Your task to perform on an android device: turn on translation in the chrome app Image 0: 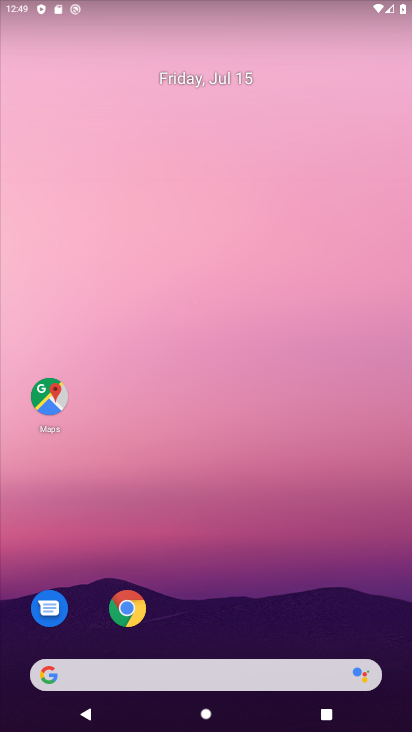
Step 0: drag from (187, 614) to (259, 107)
Your task to perform on an android device: turn on translation in the chrome app Image 1: 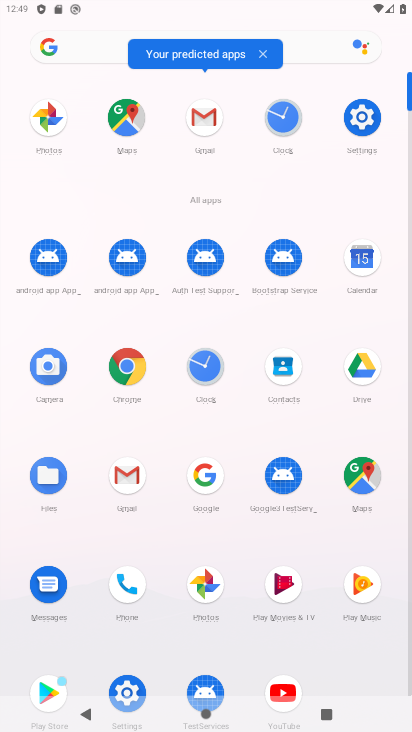
Step 1: click (124, 369)
Your task to perform on an android device: turn on translation in the chrome app Image 2: 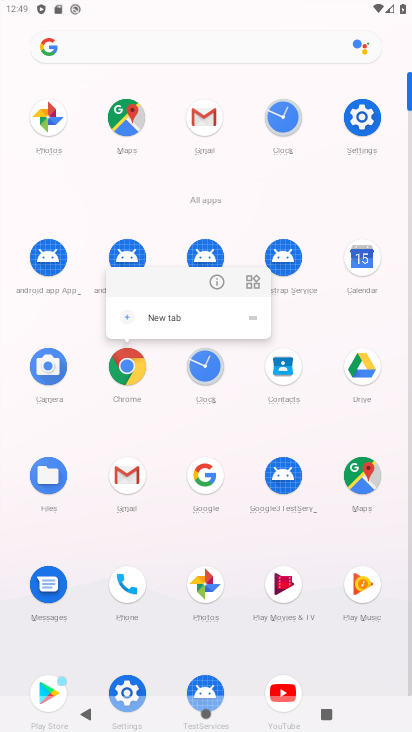
Step 2: click (214, 288)
Your task to perform on an android device: turn on translation in the chrome app Image 3: 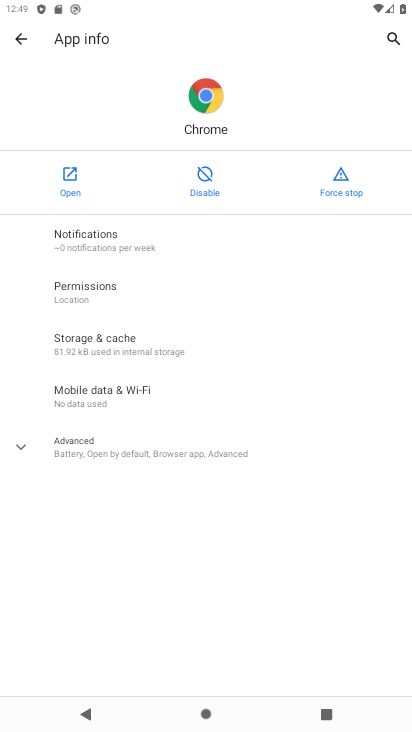
Step 3: click (68, 172)
Your task to perform on an android device: turn on translation in the chrome app Image 4: 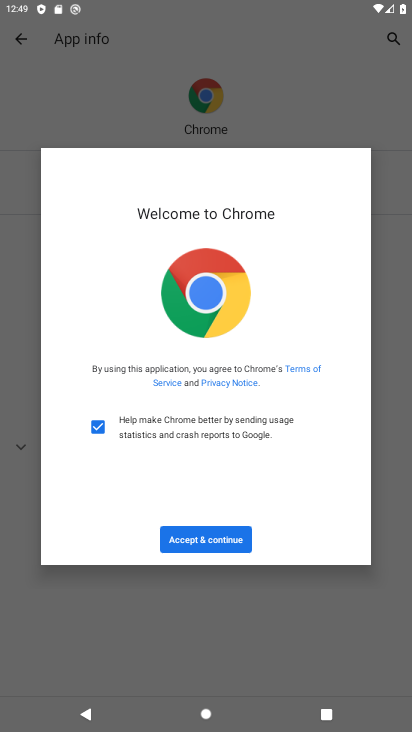
Step 4: click (210, 540)
Your task to perform on an android device: turn on translation in the chrome app Image 5: 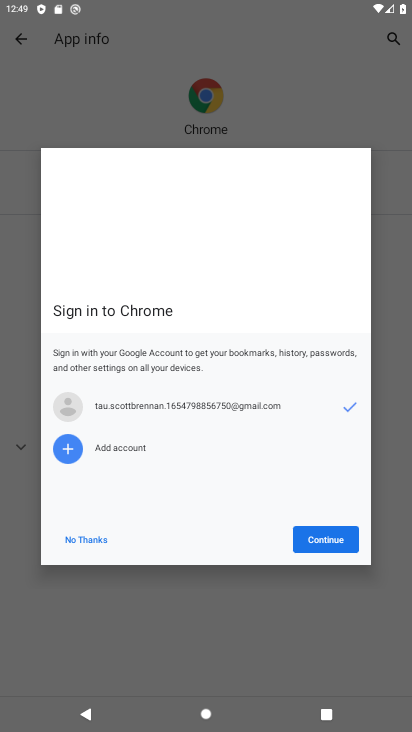
Step 5: click (308, 534)
Your task to perform on an android device: turn on translation in the chrome app Image 6: 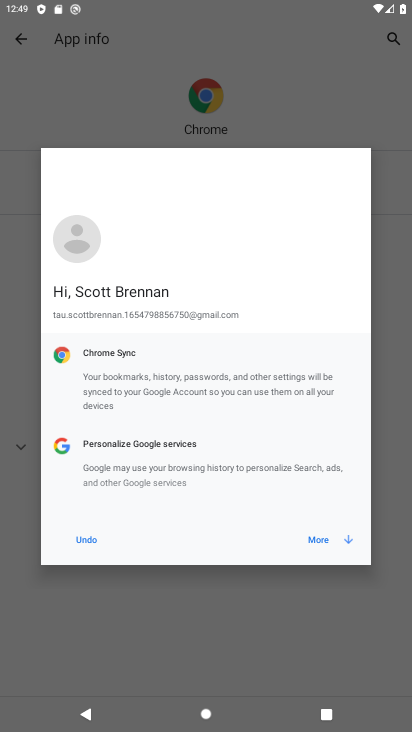
Step 6: click (305, 531)
Your task to perform on an android device: turn on translation in the chrome app Image 7: 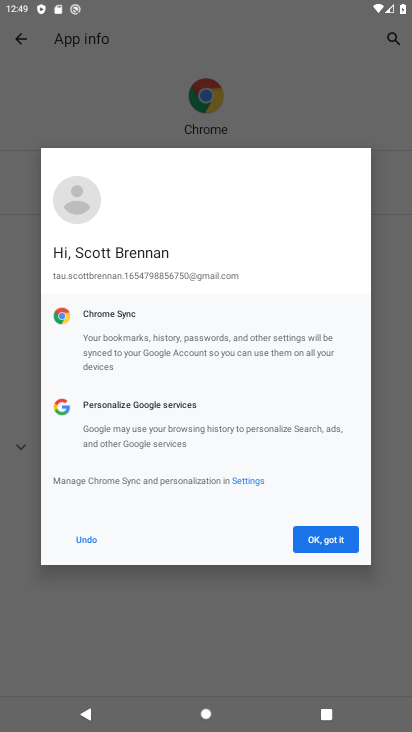
Step 7: click (308, 533)
Your task to perform on an android device: turn on translation in the chrome app Image 8: 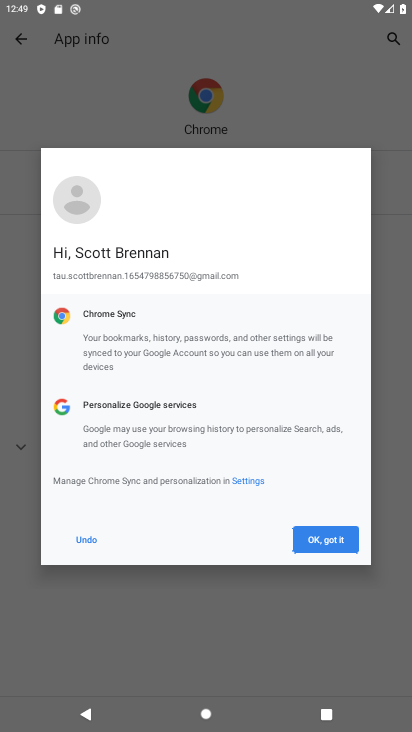
Step 8: click (313, 531)
Your task to perform on an android device: turn on translation in the chrome app Image 9: 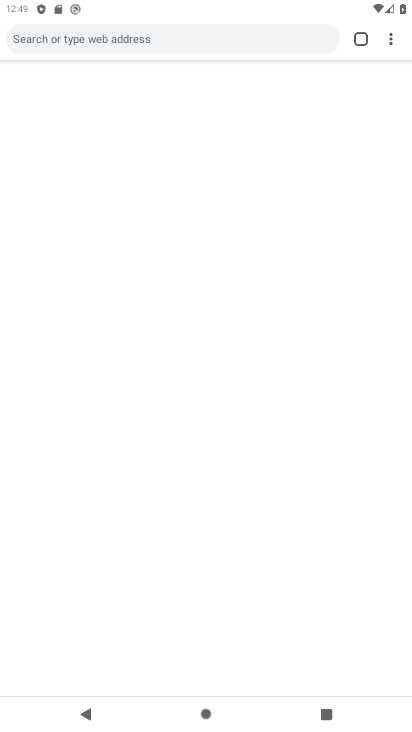
Step 9: drag from (239, 478) to (260, 249)
Your task to perform on an android device: turn on translation in the chrome app Image 10: 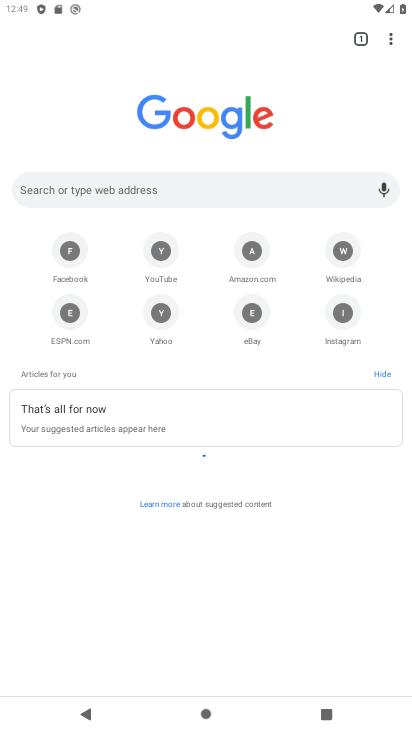
Step 10: click (391, 43)
Your task to perform on an android device: turn on translation in the chrome app Image 11: 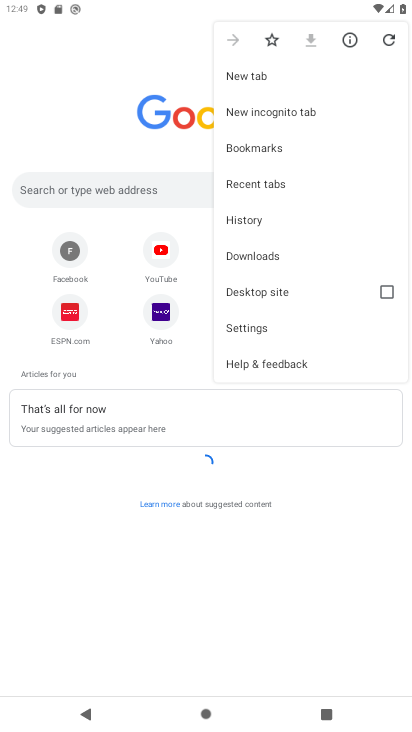
Step 11: click (242, 326)
Your task to perform on an android device: turn on translation in the chrome app Image 12: 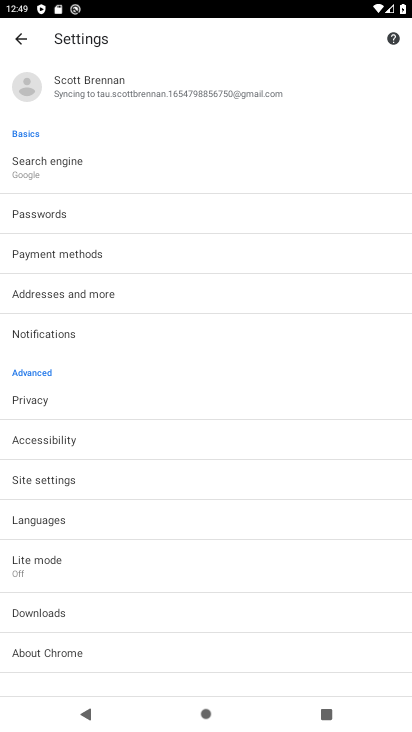
Step 12: drag from (209, 539) to (268, 341)
Your task to perform on an android device: turn on translation in the chrome app Image 13: 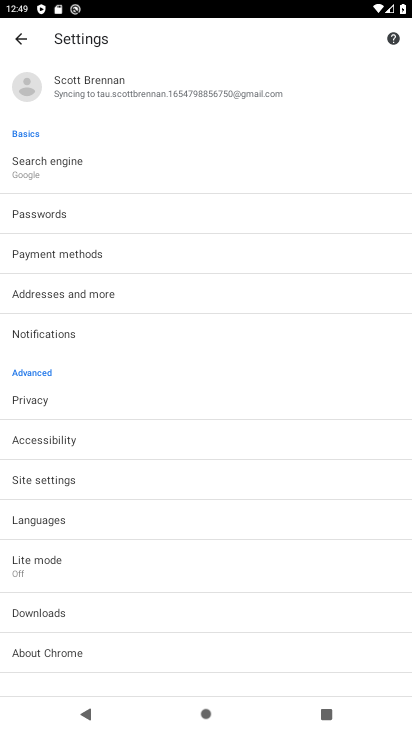
Step 13: click (82, 520)
Your task to perform on an android device: turn on translation in the chrome app Image 14: 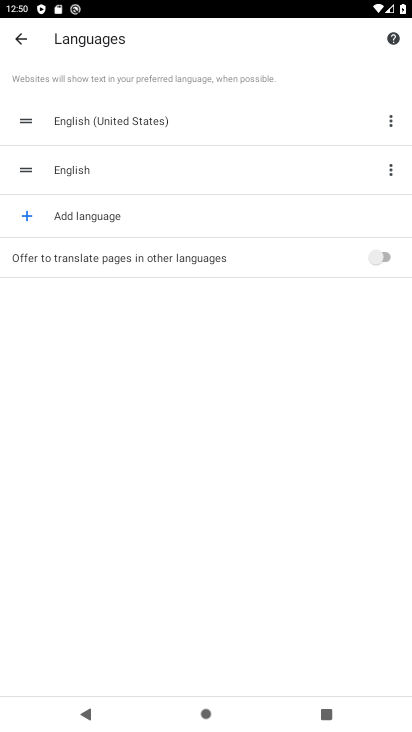
Step 14: click (307, 261)
Your task to perform on an android device: turn on translation in the chrome app Image 15: 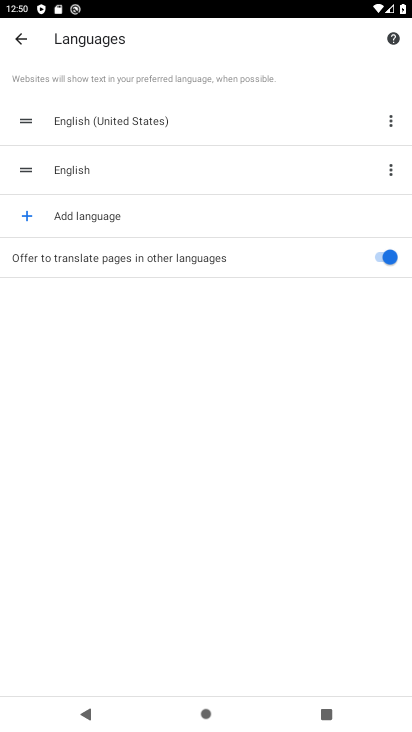
Step 15: task complete